Your task to perform on an android device: Show me popular videos on Youtube Image 0: 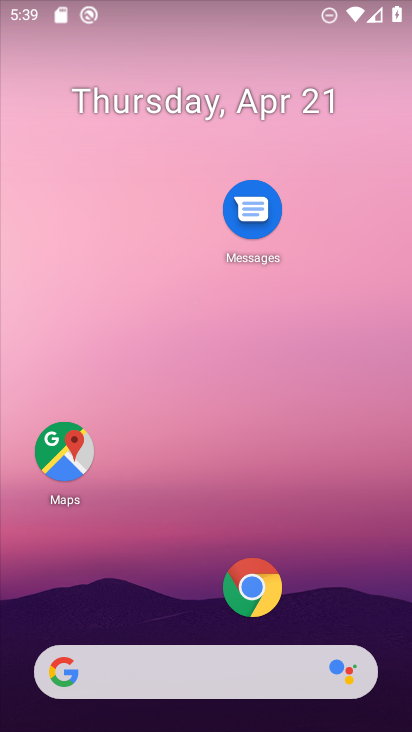
Step 0: drag from (208, 618) to (227, 209)
Your task to perform on an android device: Show me popular videos on Youtube Image 1: 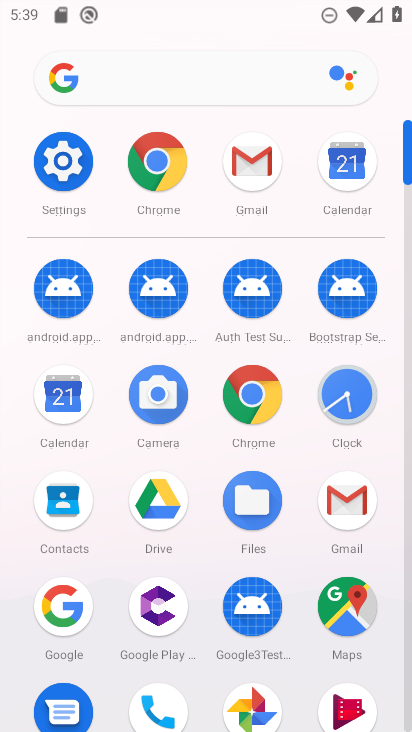
Step 1: drag from (209, 656) to (202, 243)
Your task to perform on an android device: Show me popular videos on Youtube Image 2: 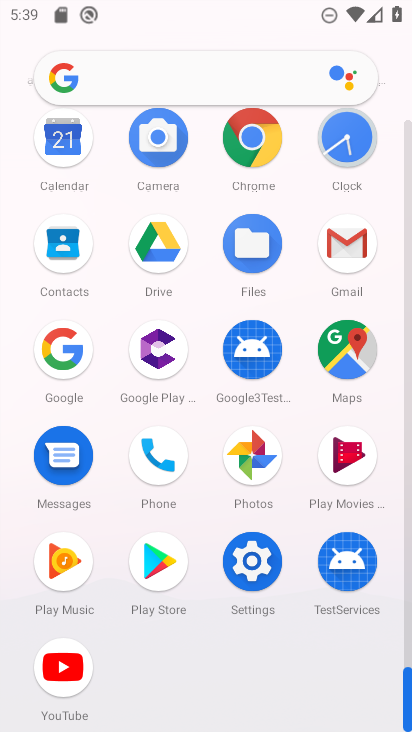
Step 2: click (49, 662)
Your task to perform on an android device: Show me popular videos on Youtube Image 3: 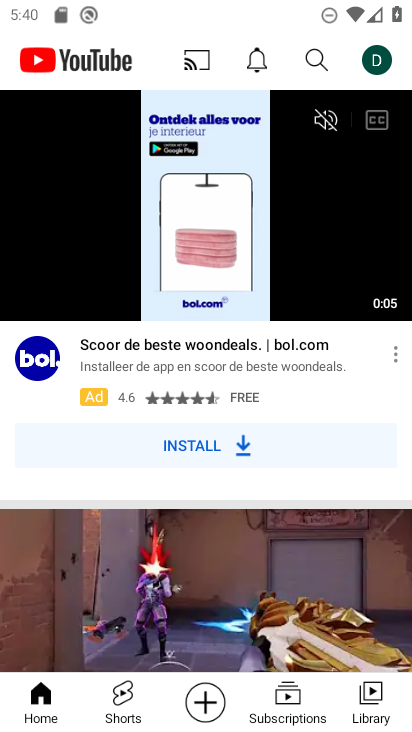
Step 3: drag from (247, 177) to (266, 451)
Your task to perform on an android device: Show me popular videos on Youtube Image 4: 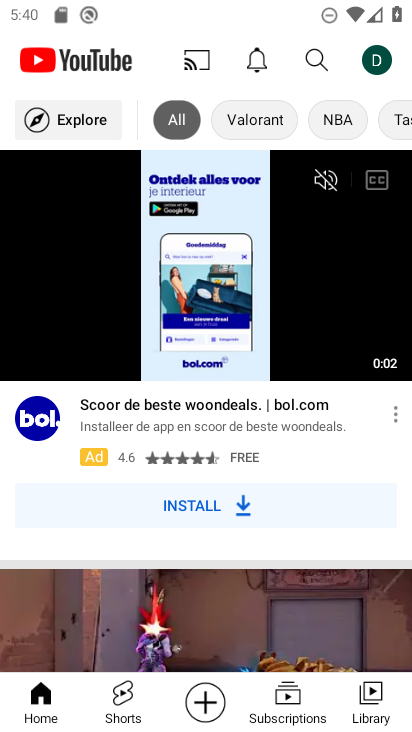
Step 4: drag from (346, 119) to (137, 122)
Your task to perform on an android device: Show me popular videos on Youtube Image 5: 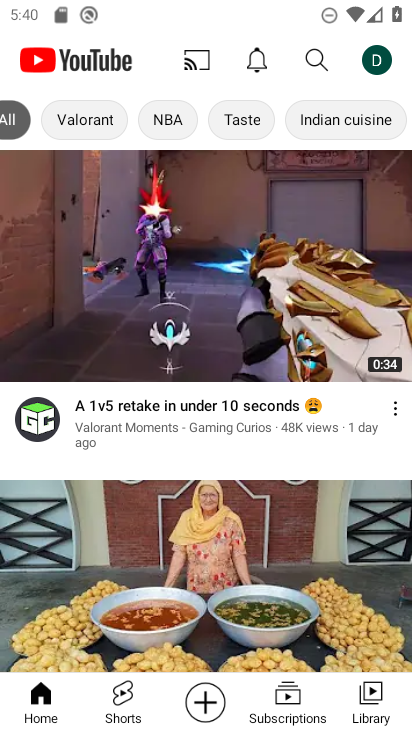
Step 5: drag from (379, 116) to (125, 123)
Your task to perform on an android device: Show me popular videos on Youtube Image 6: 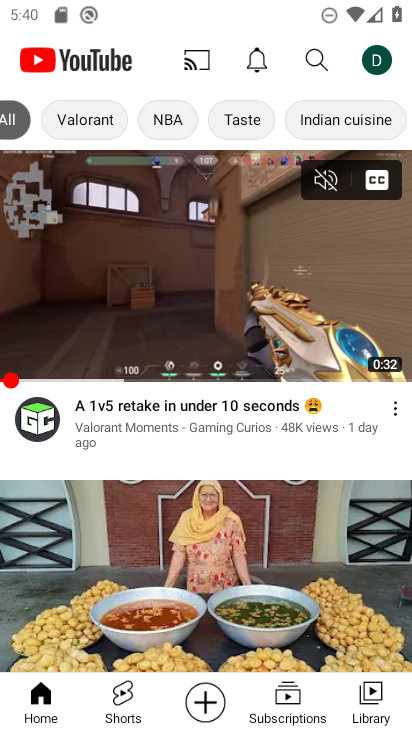
Step 6: drag from (389, 119) to (73, 115)
Your task to perform on an android device: Show me popular videos on Youtube Image 7: 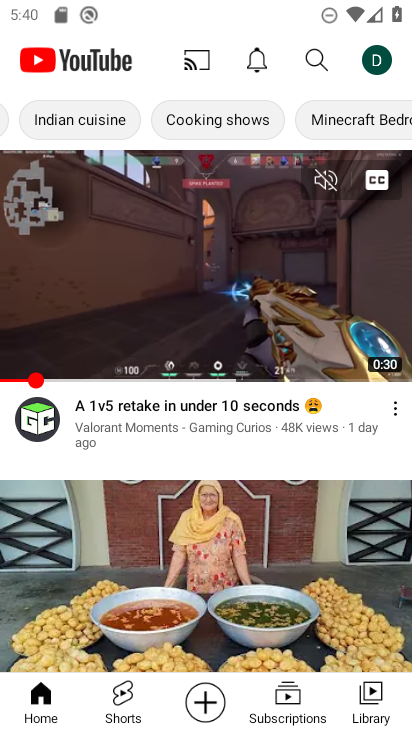
Step 7: drag from (360, 118) to (0, 115)
Your task to perform on an android device: Show me popular videos on Youtube Image 8: 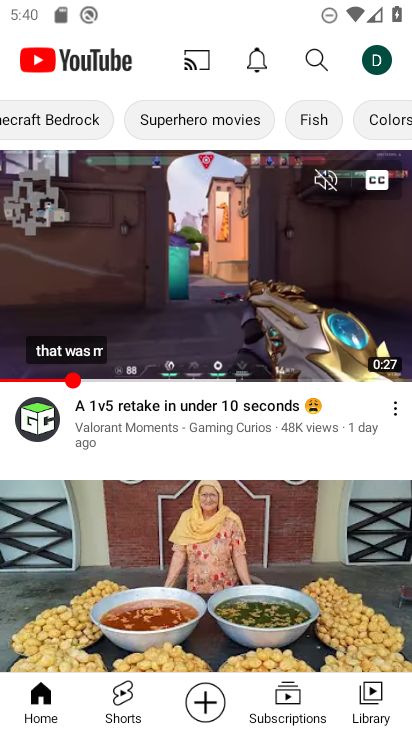
Step 8: drag from (366, 127) to (73, 111)
Your task to perform on an android device: Show me popular videos on Youtube Image 9: 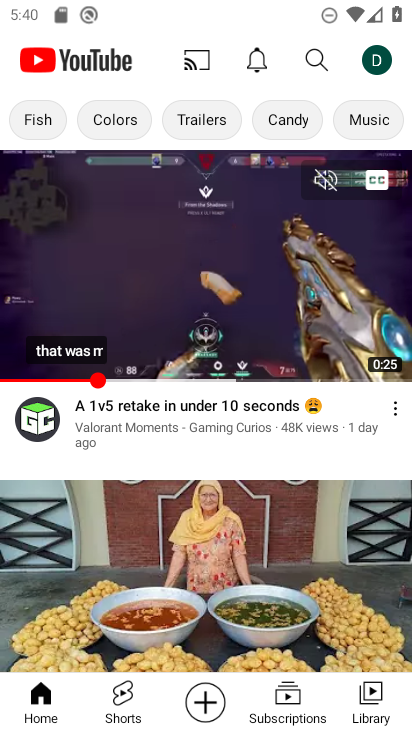
Step 9: drag from (374, 118) to (236, 118)
Your task to perform on an android device: Show me popular videos on Youtube Image 10: 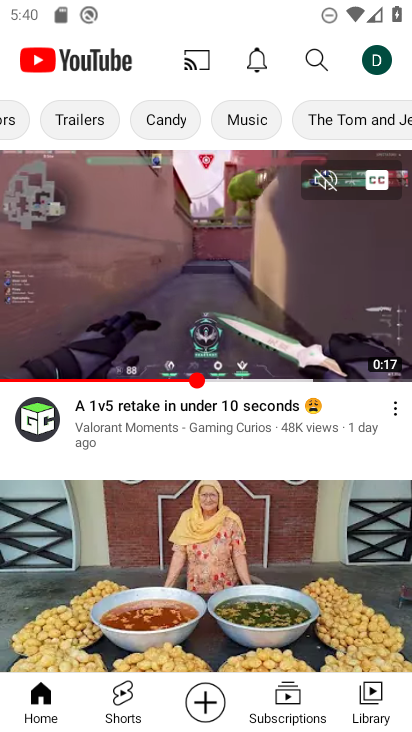
Step 10: click (371, 695)
Your task to perform on an android device: Show me popular videos on Youtube Image 11: 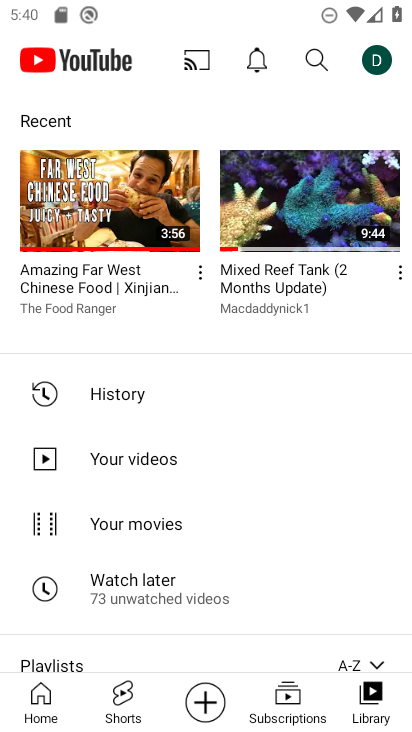
Step 11: drag from (149, 581) to (164, 334)
Your task to perform on an android device: Show me popular videos on Youtube Image 12: 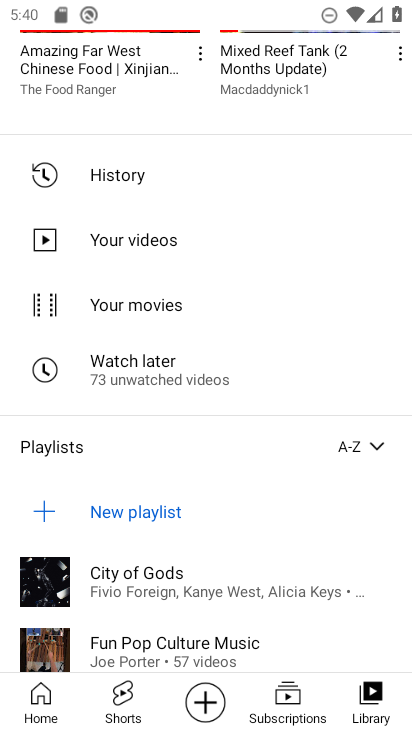
Step 12: drag from (148, 572) to (176, 343)
Your task to perform on an android device: Show me popular videos on Youtube Image 13: 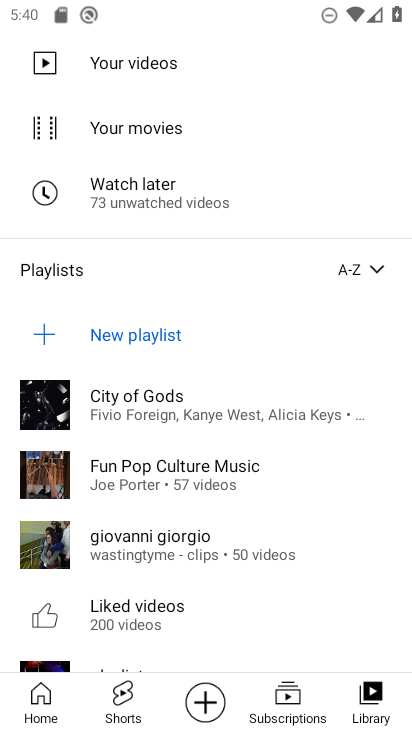
Step 13: click (40, 700)
Your task to perform on an android device: Show me popular videos on Youtube Image 14: 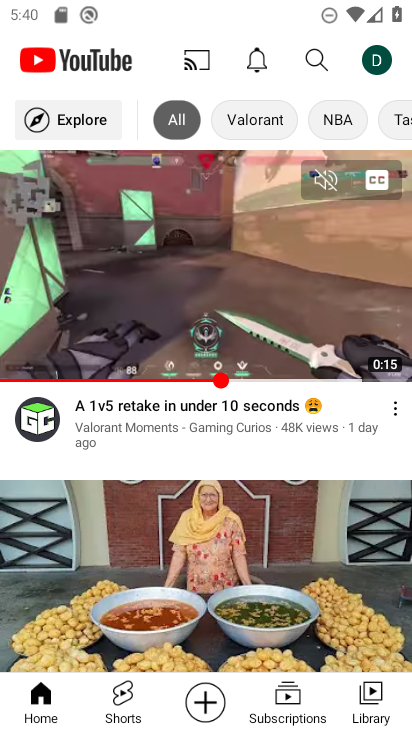
Step 14: click (51, 114)
Your task to perform on an android device: Show me popular videos on Youtube Image 15: 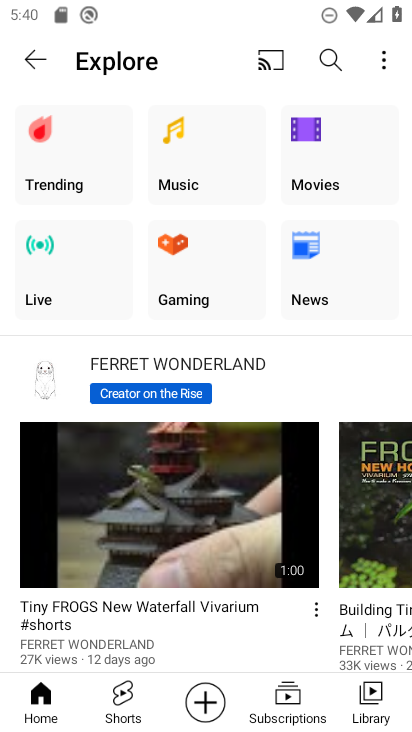
Step 15: drag from (180, 557) to (225, 532)
Your task to perform on an android device: Show me popular videos on Youtube Image 16: 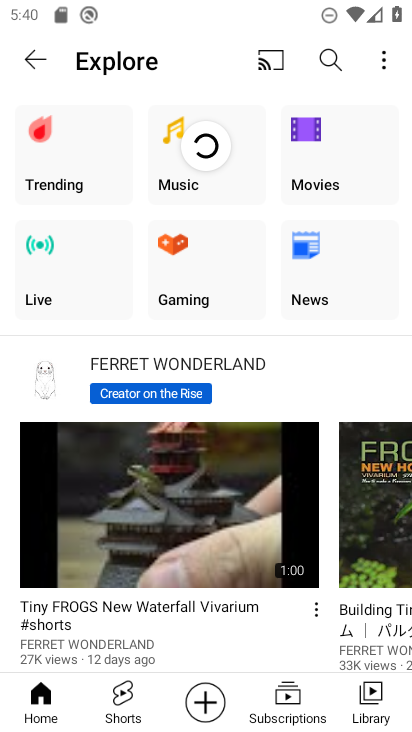
Step 16: click (48, 152)
Your task to perform on an android device: Show me popular videos on Youtube Image 17: 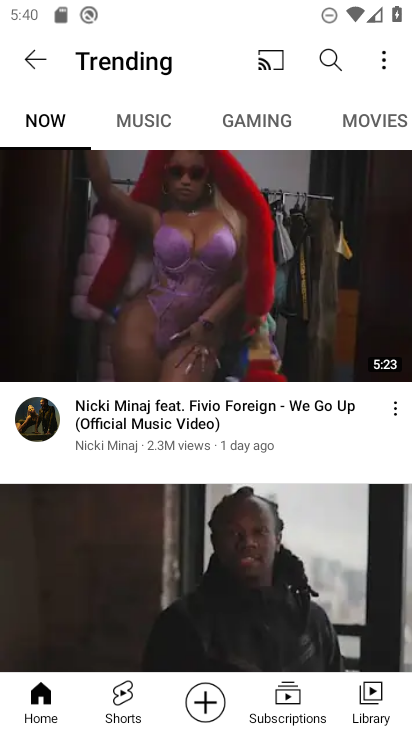
Step 17: task complete